Your task to perform on an android device: Do I have any events today? Image 0: 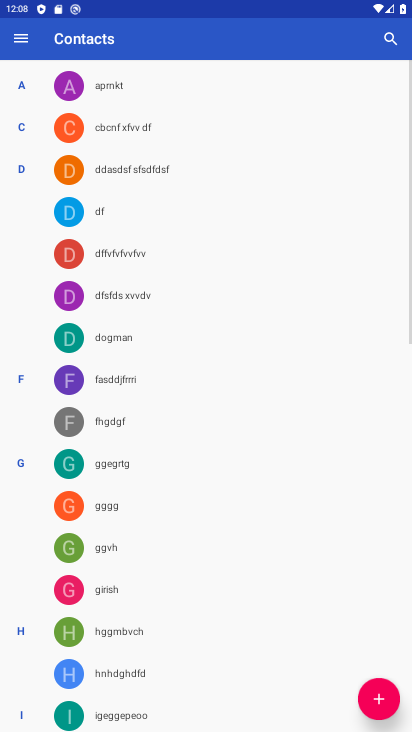
Step 0: drag from (376, 6) to (303, 601)
Your task to perform on an android device: Do I have any events today? Image 1: 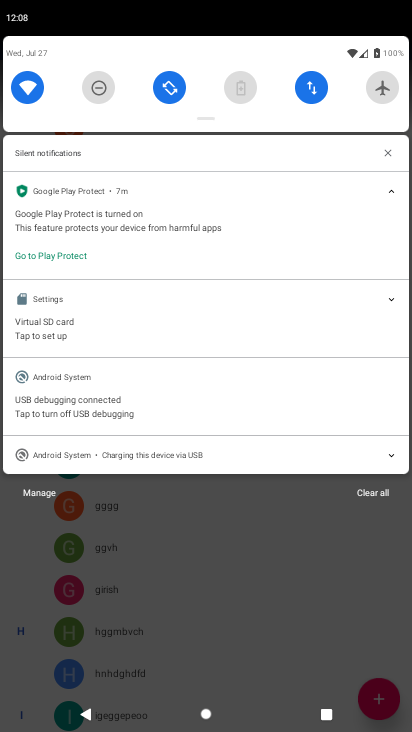
Step 1: drag from (332, 644) to (325, 163)
Your task to perform on an android device: Do I have any events today? Image 2: 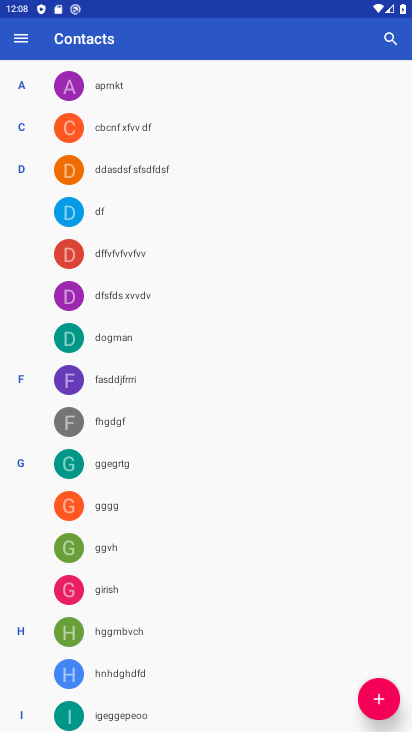
Step 2: press home button
Your task to perform on an android device: Do I have any events today? Image 3: 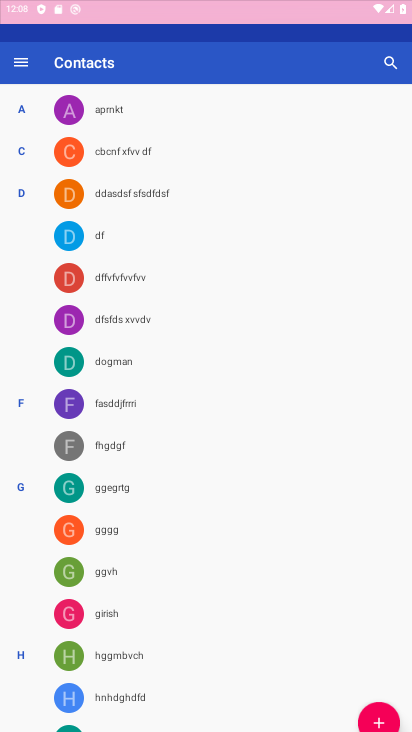
Step 3: drag from (296, 643) to (285, 73)
Your task to perform on an android device: Do I have any events today? Image 4: 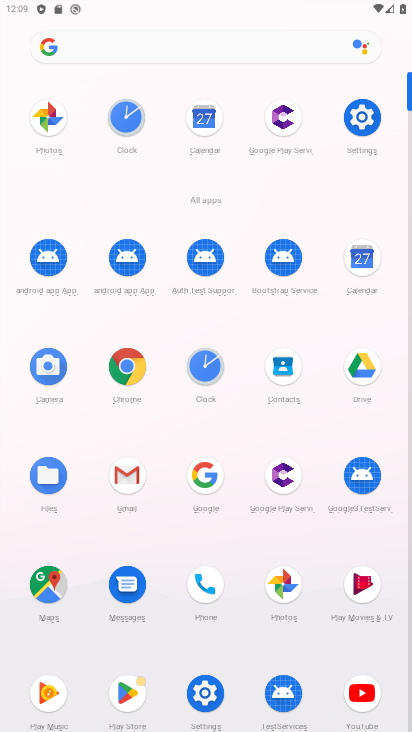
Step 4: click (357, 273)
Your task to perform on an android device: Do I have any events today? Image 5: 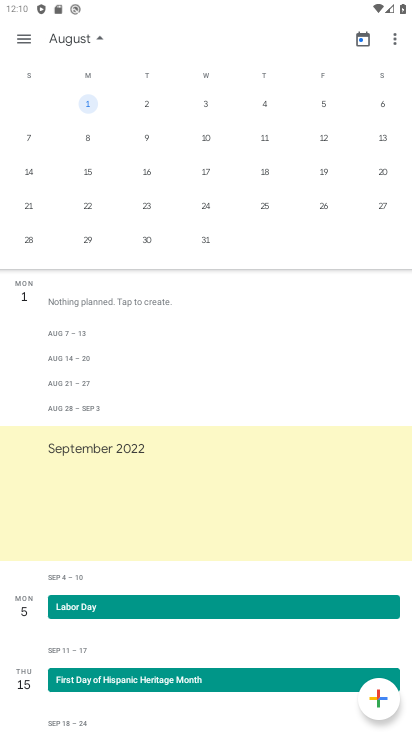
Step 5: drag from (20, 136) to (247, 181)
Your task to perform on an android device: Do I have any events today? Image 6: 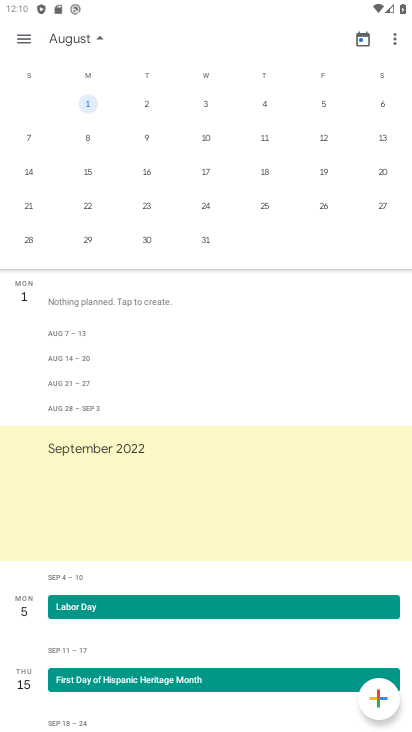
Step 6: drag from (15, 184) to (369, 130)
Your task to perform on an android device: Do I have any events today? Image 7: 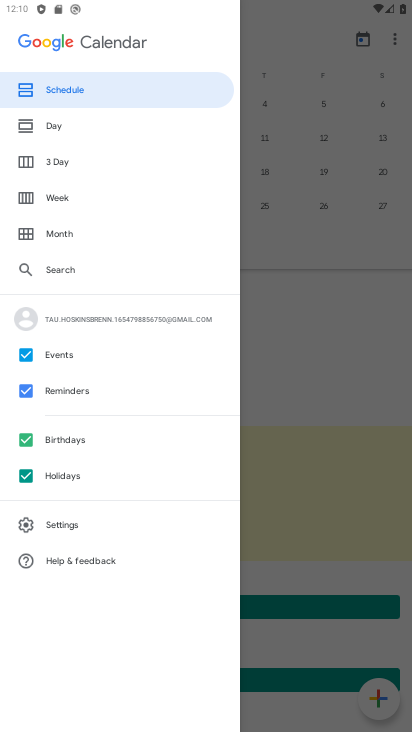
Step 7: drag from (318, 324) to (6, 239)
Your task to perform on an android device: Do I have any events today? Image 8: 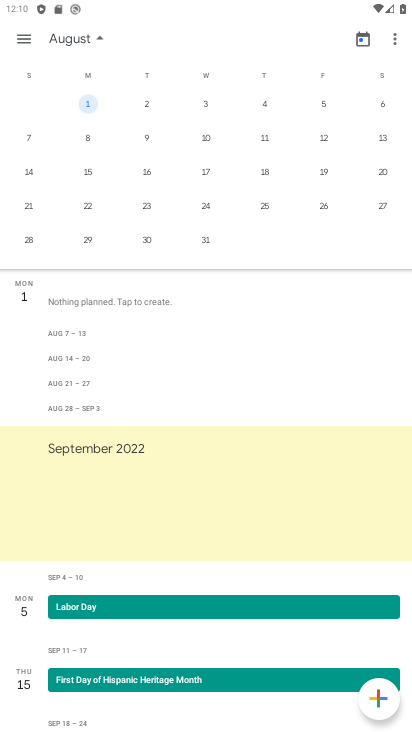
Step 8: drag from (80, 171) to (364, 139)
Your task to perform on an android device: Do I have any events today? Image 9: 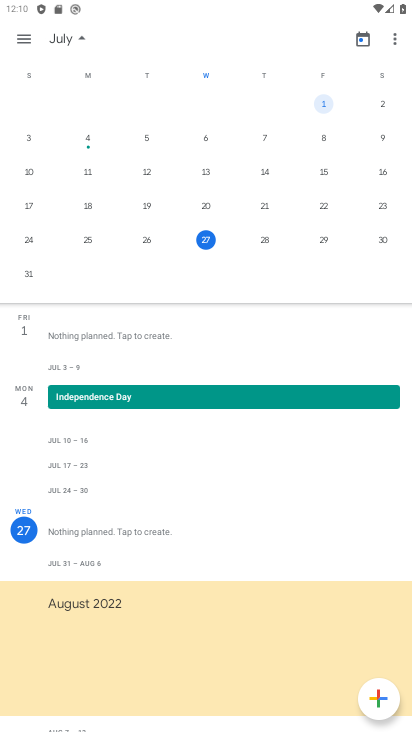
Step 9: click (218, 238)
Your task to perform on an android device: Do I have any events today? Image 10: 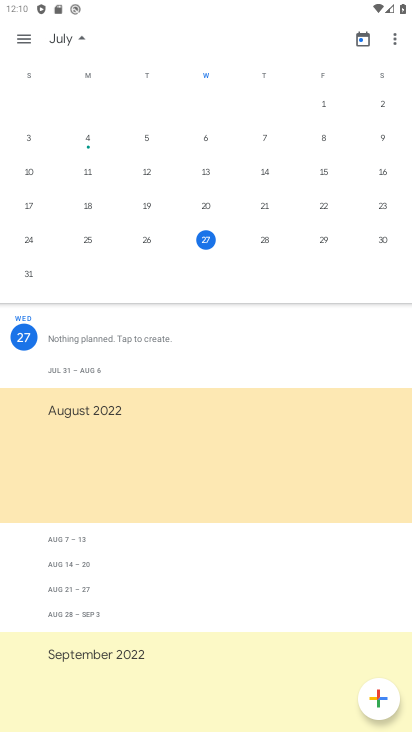
Step 10: task complete